Your task to perform on an android device: Check the news Image 0: 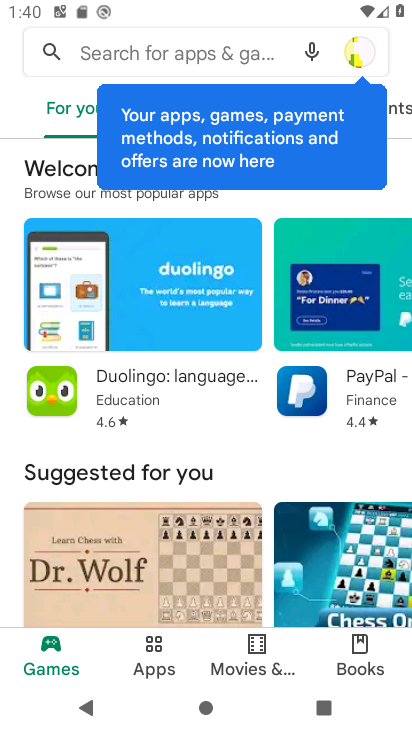
Step 0: press home button
Your task to perform on an android device: Check the news Image 1: 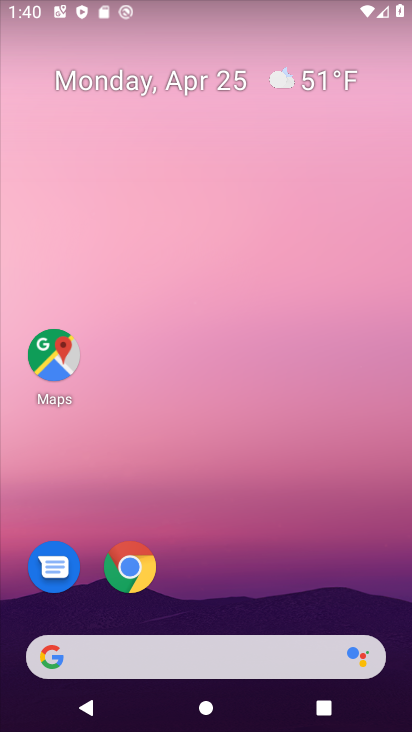
Step 1: task complete